Your task to perform on an android device: open app "Google Home" (install if not already installed) Image 0: 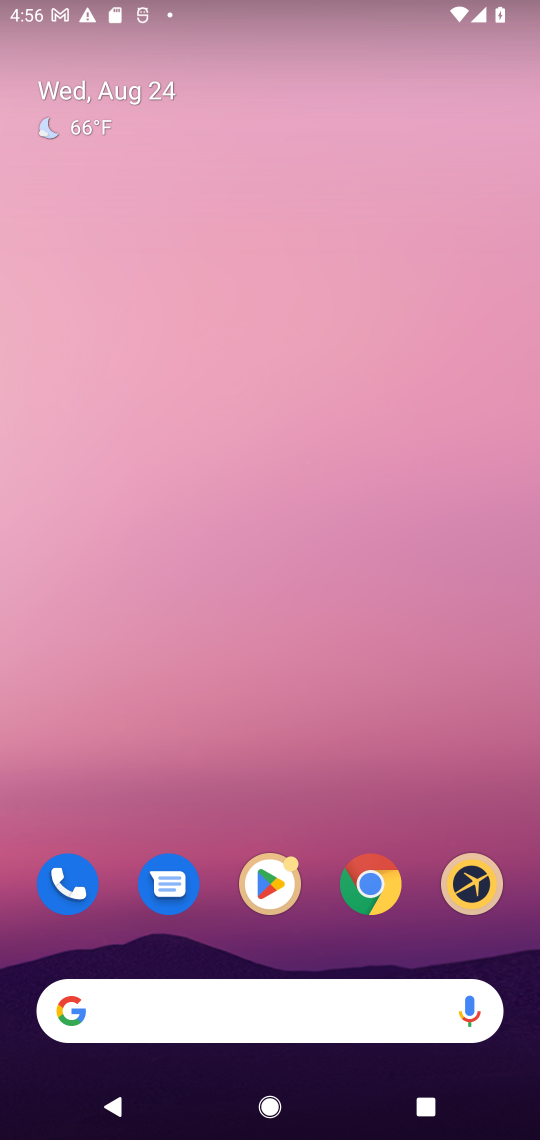
Step 0: click (274, 890)
Your task to perform on an android device: open app "Google Home" (install if not already installed) Image 1: 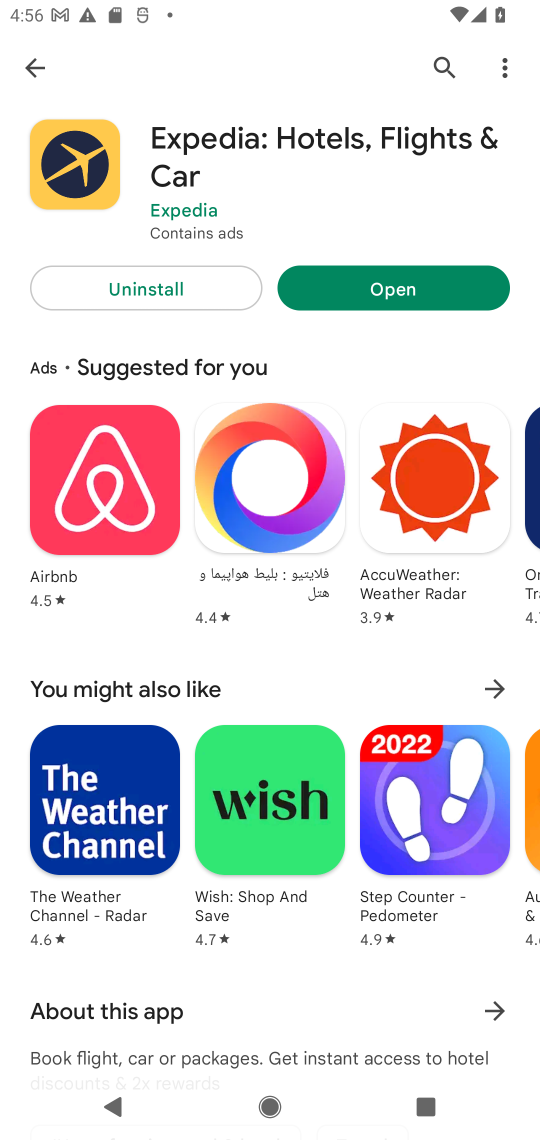
Step 1: click (28, 62)
Your task to perform on an android device: open app "Google Home" (install if not already installed) Image 2: 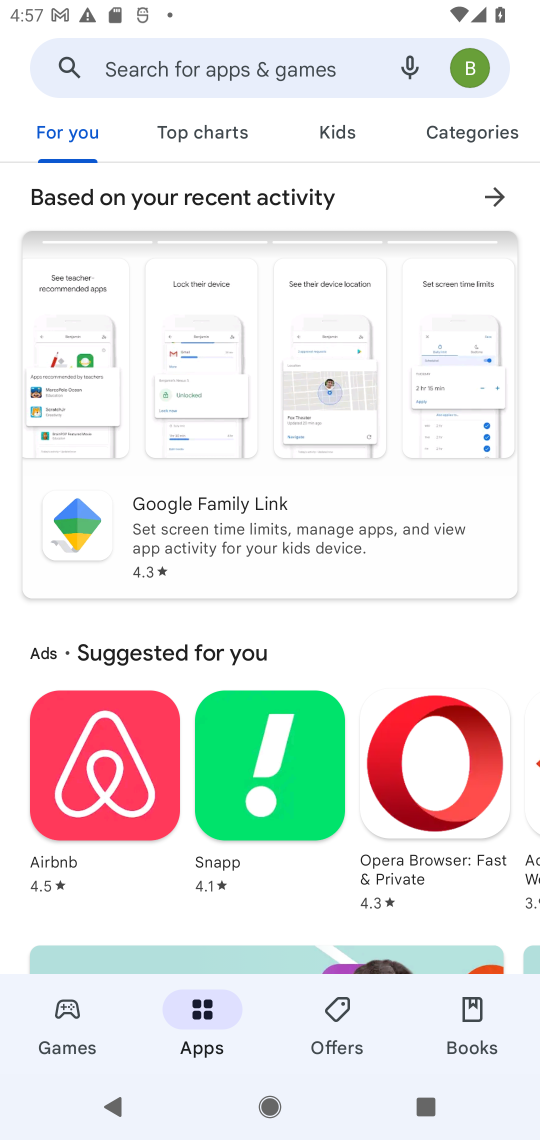
Step 2: click (230, 52)
Your task to perform on an android device: open app "Google Home" (install if not already installed) Image 3: 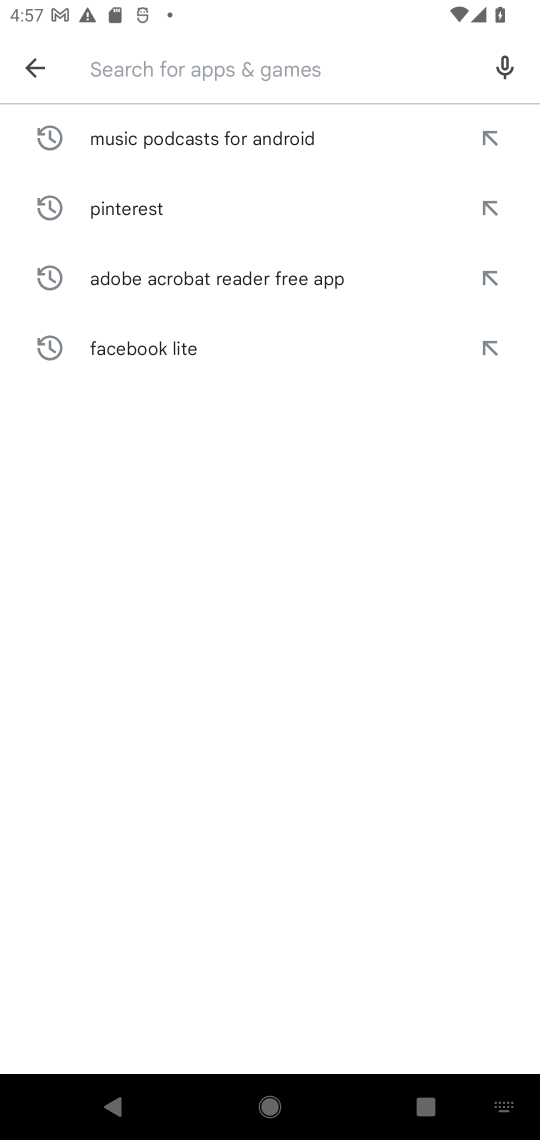
Step 3: type "Google Home"
Your task to perform on an android device: open app "Google Home" (install if not already installed) Image 4: 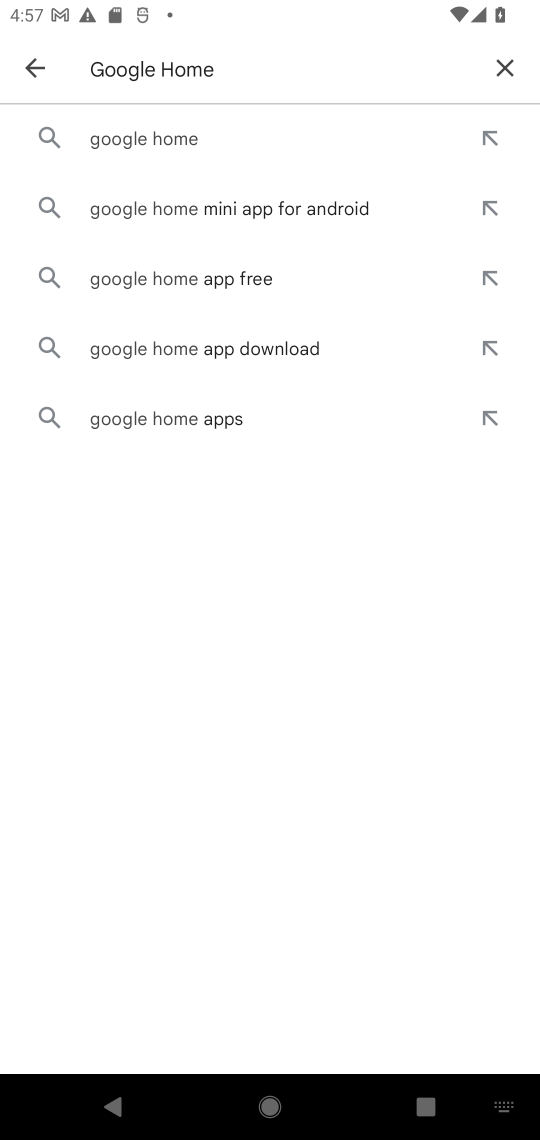
Step 4: click (149, 132)
Your task to perform on an android device: open app "Google Home" (install if not already installed) Image 5: 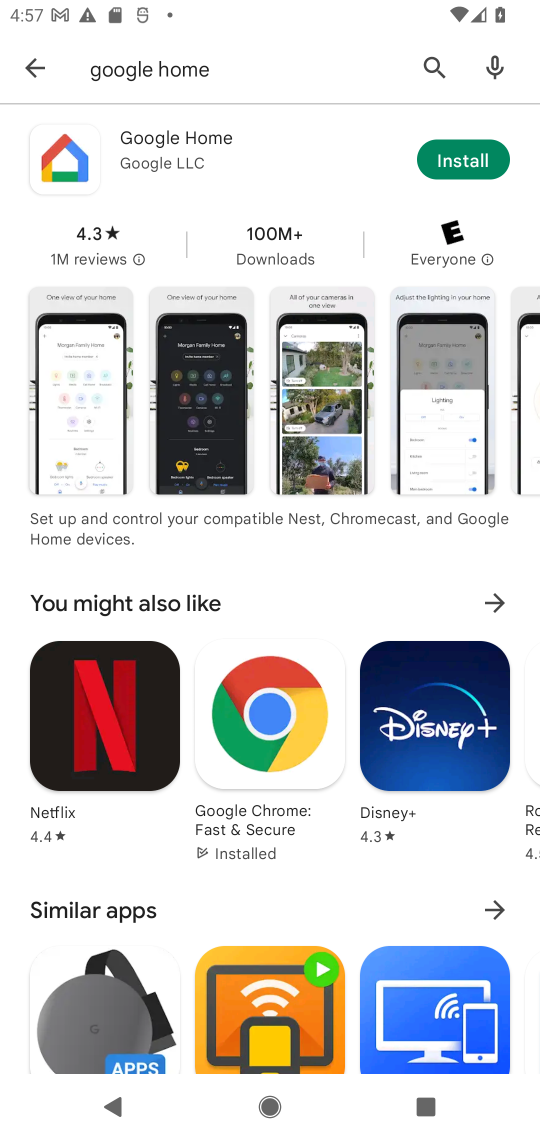
Step 5: click (460, 174)
Your task to perform on an android device: open app "Google Home" (install if not already installed) Image 6: 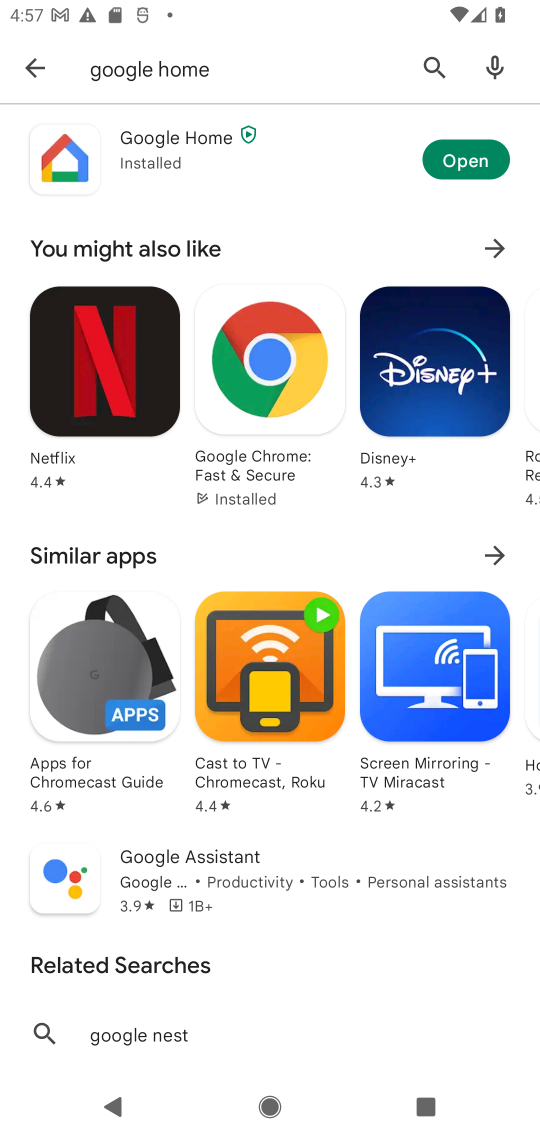
Step 6: click (460, 170)
Your task to perform on an android device: open app "Google Home" (install if not already installed) Image 7: 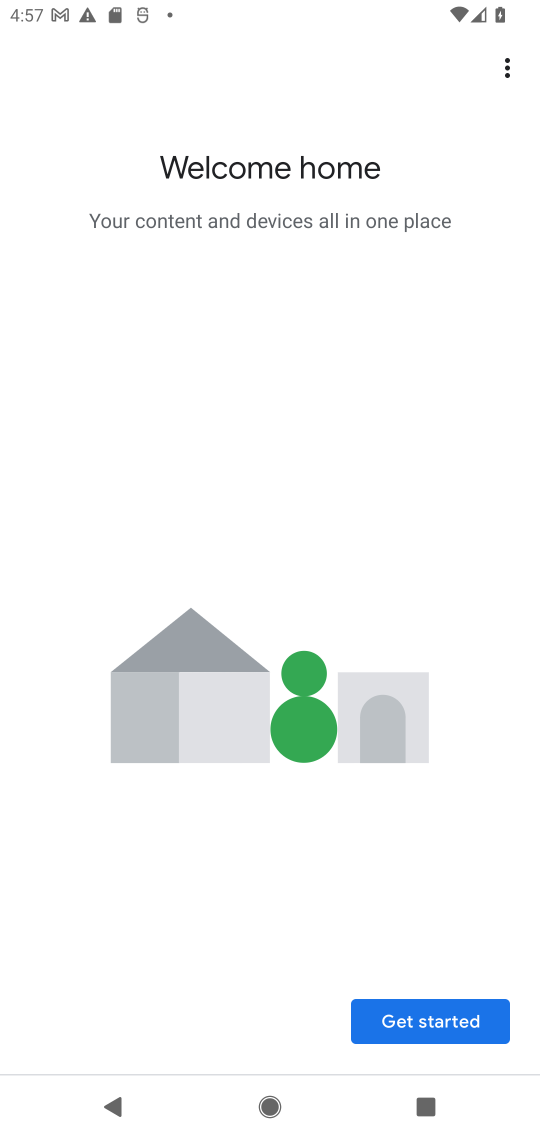
Step 7: task complete